Your task to perform on an android device: open a new tab in the chrome app Image 0: 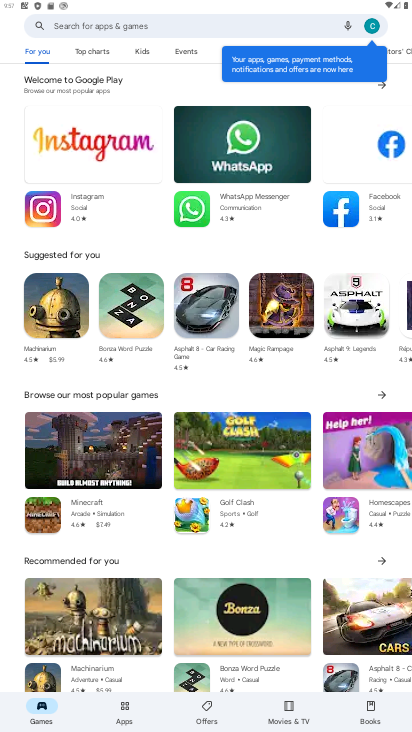
Step 0: press home button
Your task to perform on an android device: open a new tab in the chrome app Image 1: 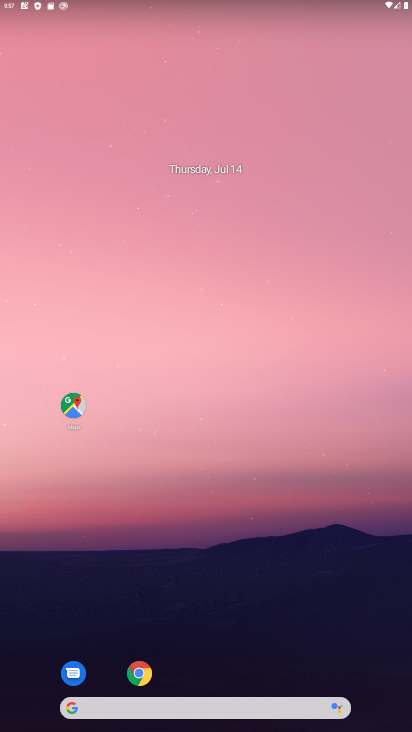
Step 1: click (138, 685)
Your task to perform on an android device: open a new tab in the chrome app Image 2: 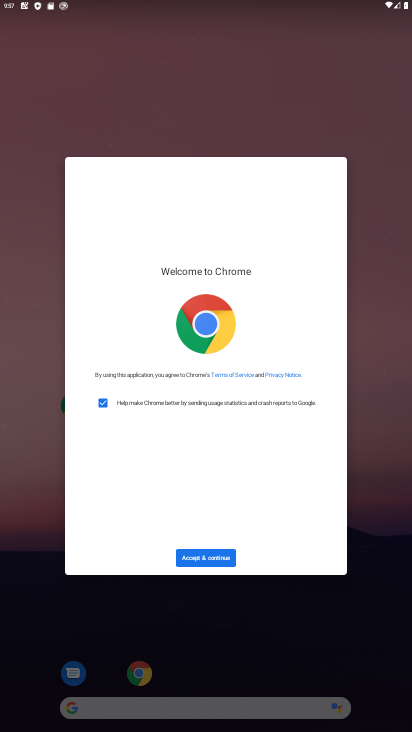
Step 2: click (196, 557)
Your task to perform on an android device: open a new tab in the chrome app Image 3: 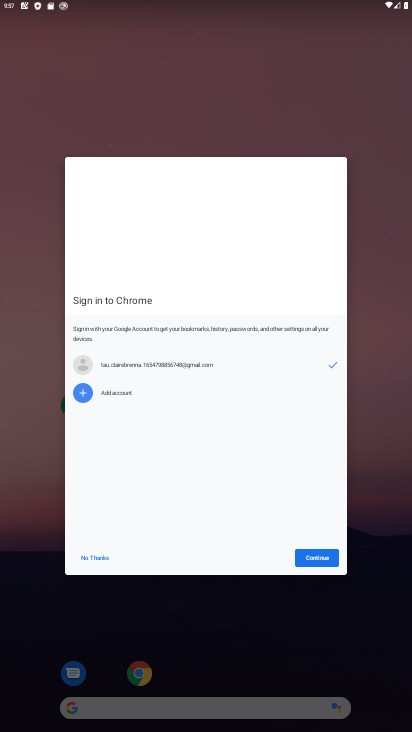
Step 3: click (324, 557)
Your task to perform on an android device: open a new tab in the chrome app Image 4: 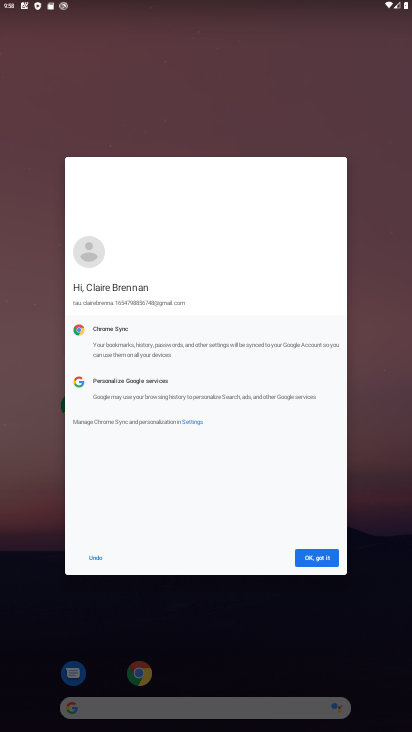
Step 4: click (324, 557)
Your task to perform on an android device: open a new tab in the chrome app Image 5: 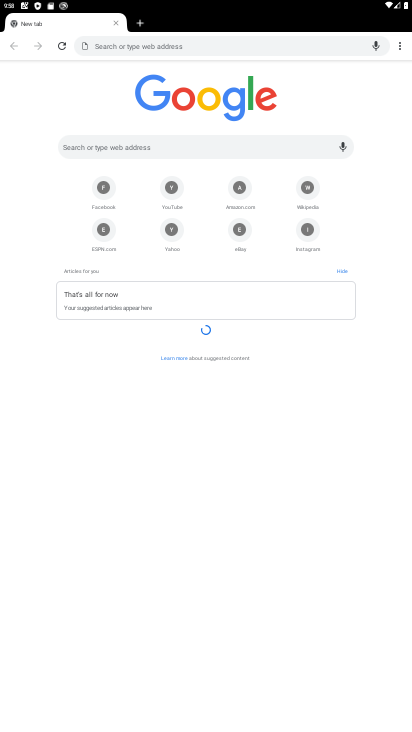
Step 5: click (139, 27)
Your task to perform on an android device: open a new tab in the chrome app Image 6: 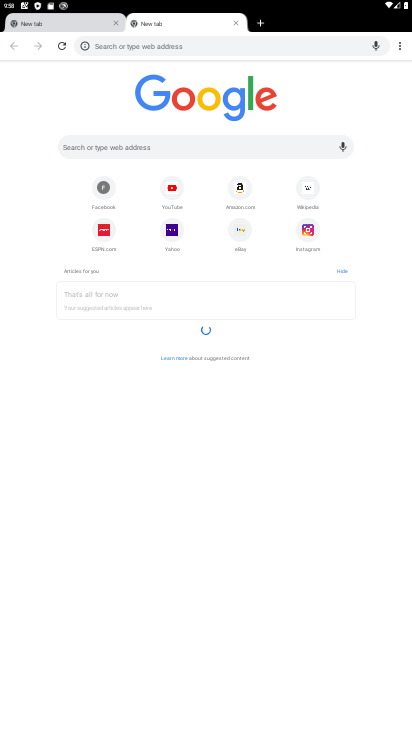
Step 6: task complete